Your task to perform on an android device: Open Google Chrome and click the shortcut for Amazon.com Image 0: 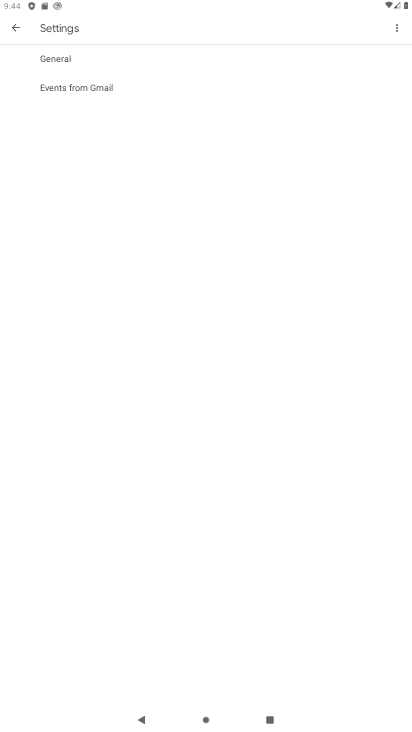
Step 0: press home button
Your task to perform on an android device: Open Google Chrome and click the shortcut for Amazon.com Image 1: 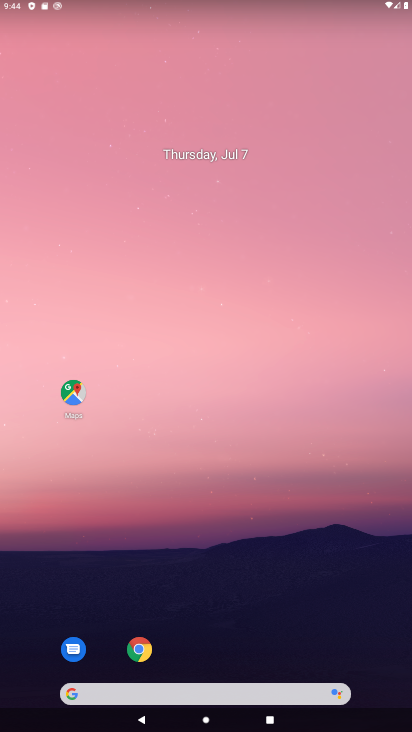
Step 1: click (140, 645)
Your task to perform on an android device: Open Google Chrome and click the shortcut for Amazon.com Image 2: 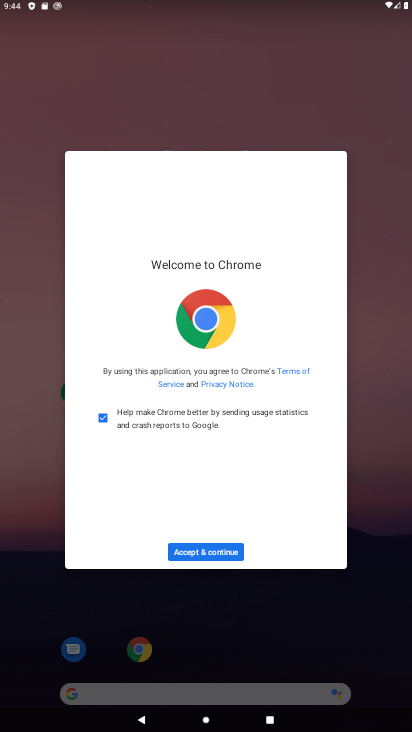
Step 2: click (189, 548)
Your task to perform on an android device: Open Google Chrome and click the shortcut for Amazon.com Image 3: 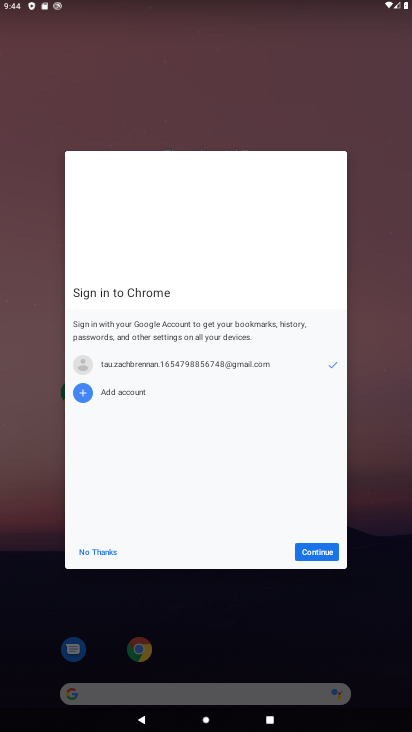
Step 3: click (313, 547)
Your task to perform on an android device: Open Google Chrome and click the shortcut for Amazon.com Image 4: 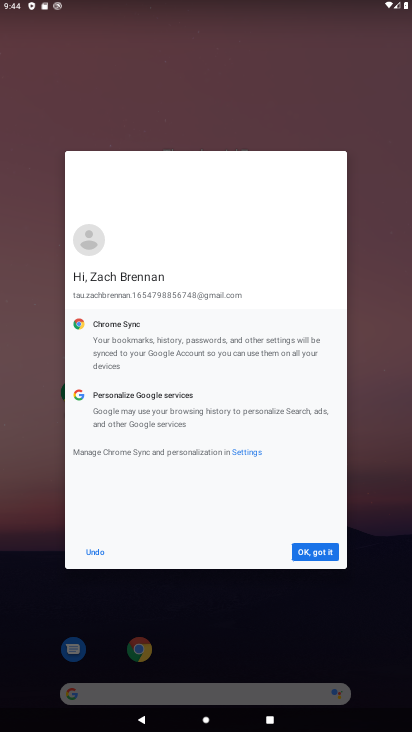
Step 4: click (313, 547)
Your task to perform on an android device: Open Google Chrome and click the shortcut for Amazon.com Image 5: 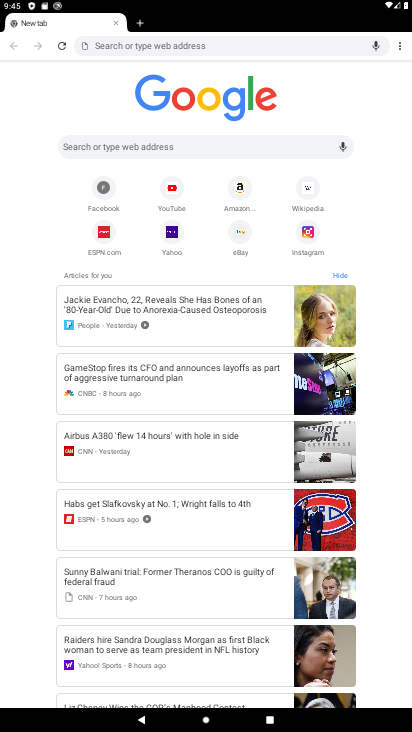
Step 5: click (233, 187)
Your task to perform on an android device: Open Google Chrome and click the shortcut for Amazon.com Image 6: 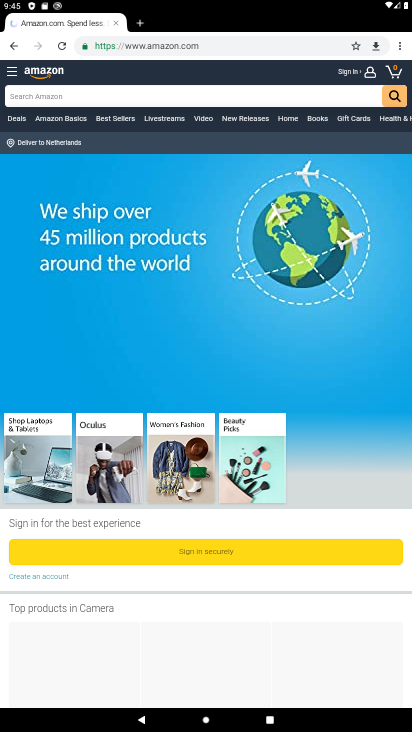
Step 6: task complete